Your task to perform on an android device: turn on the 12-hour format for clock Image 0: 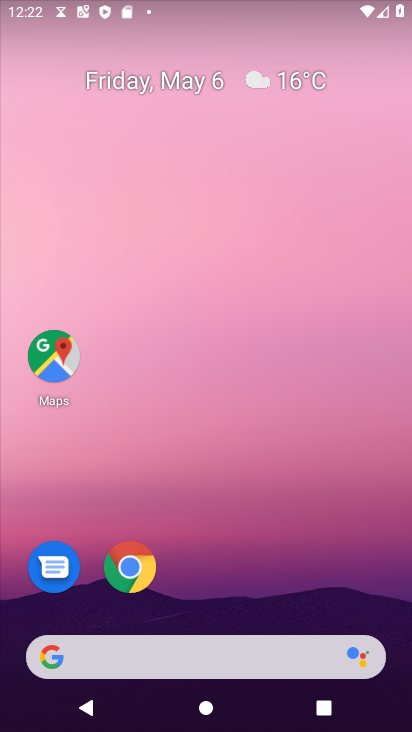
Step 0: drag from (278, 556) to (372, 127)
Your task to perform on an android device: turn on the 12-hour format for clock Image 1: 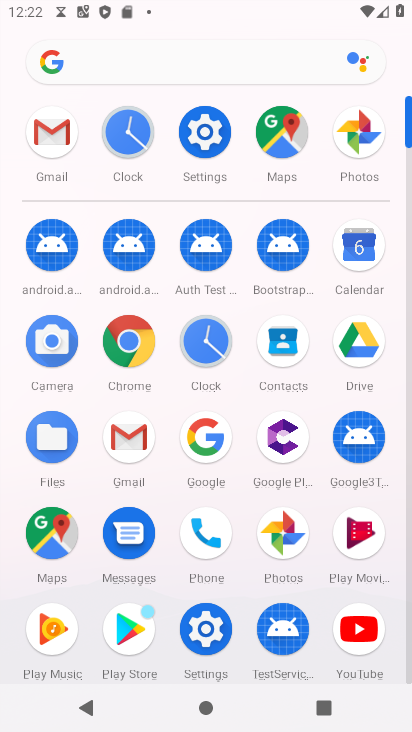
Step 1: click (212, 357)
Your task to perform on an android device: turn on the 12-hour format for clock Image 2: 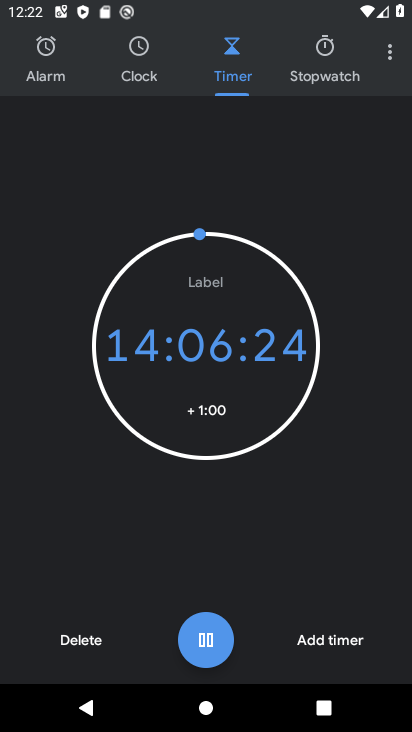
Step 2: click (386, 54)
Your task to perform on an android device: turn on the 12-hour format for clock Image 3: 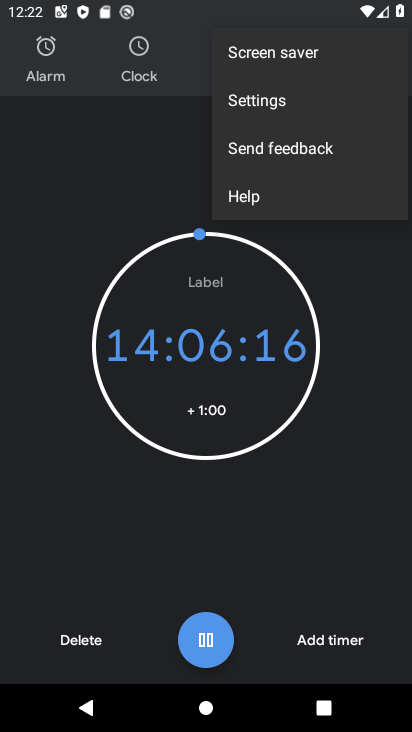
Step 3: click (281, 103)
Your task to perform on an android device: turn on the 12-hour format for clock Image 4: 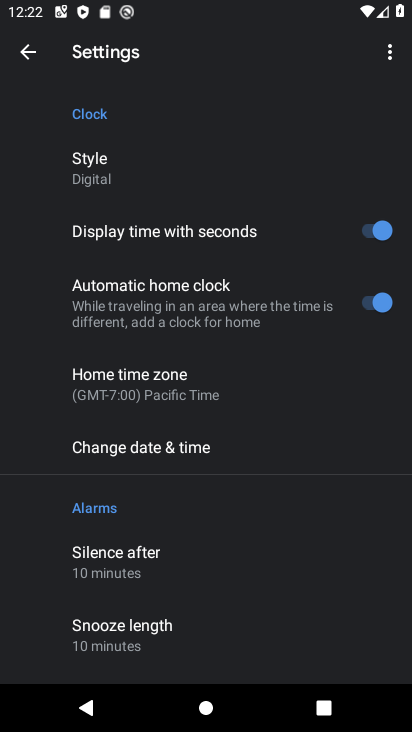
Step 4: drag from (270, 615) to (351, 132)
Your task to perform on an android device: turn on the 12-hour format for clock Image 5: 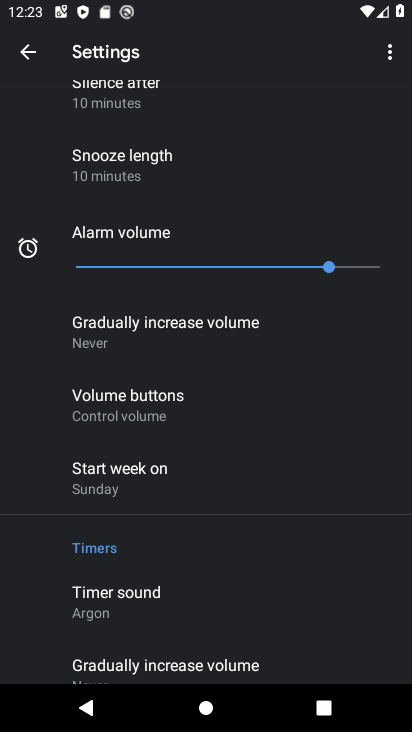
Step 5: drag from (241, 538) to (237, 99)
Your task to perform on an android device: turn on the 12-hour format for clock Image 6: 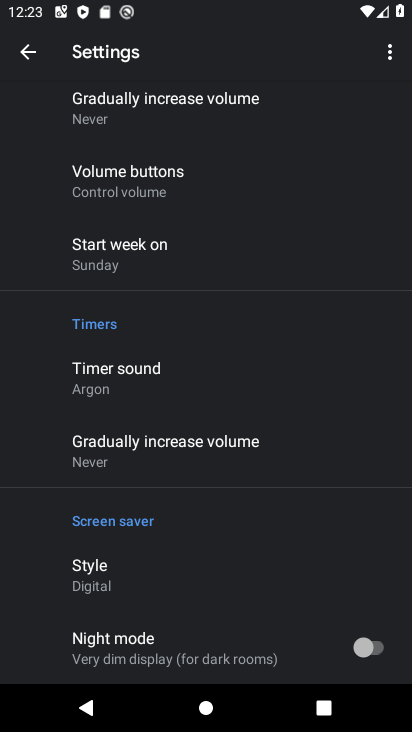
Step 6: drag from (206, 601) to (256, 170)
Your task to perform on an android device: turn on the 12-hour format for clock Image 7: 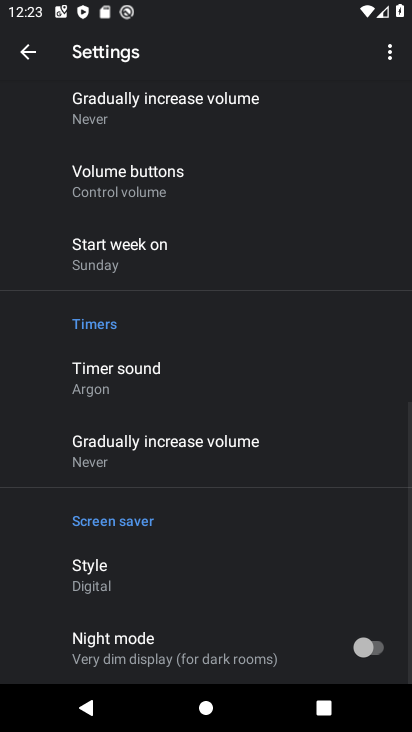
Step 7: drag from (254, 181) to (223, 540)
Your task to perform on an android device: turn on the 12-hour format for clock Image 8: 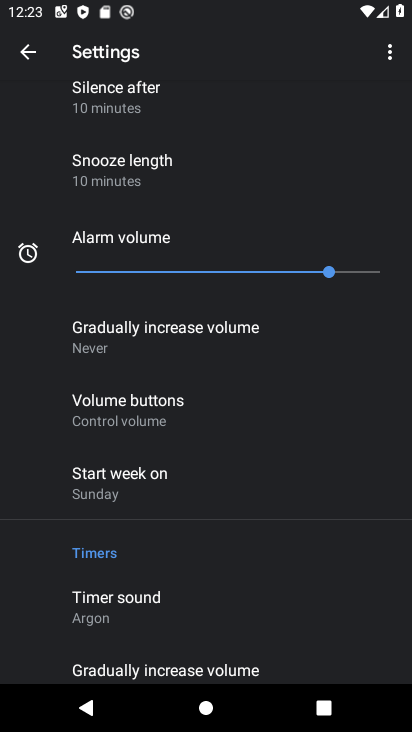
Step 8: drag from (234, 207) to (205, 540)
Your task to perform on an android device: turn on the 12-hour format for clock Image 9: 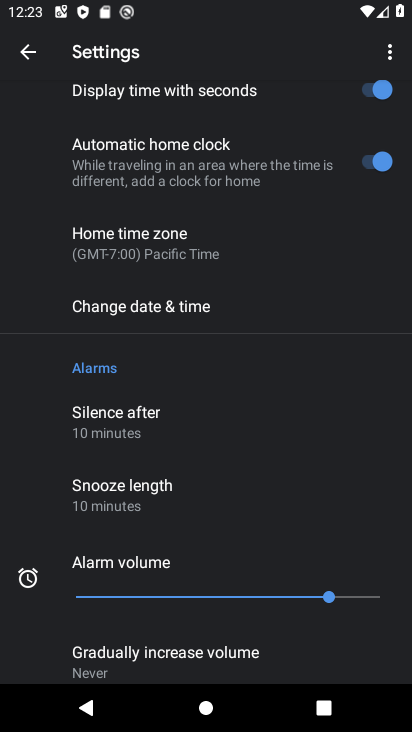
Step 9: drag from (231, 259) to (204, 574)
Your task to perform on an android device: turn on the 12-hour format for clock Image 10: 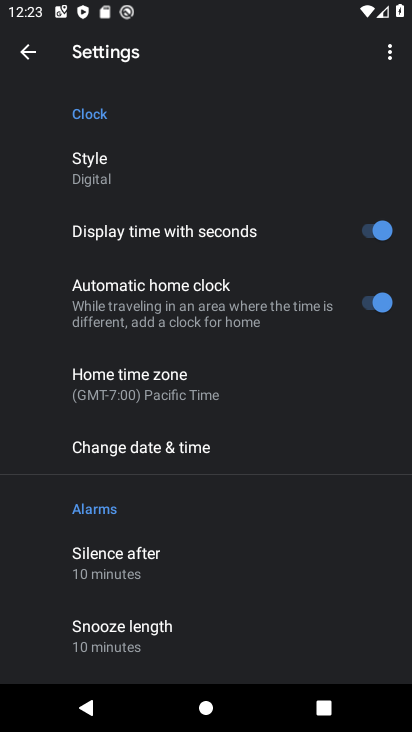
Step 10: drag from (185, 170) to (215, 507)
Your task to perform on an android device: turn on the 12-hour format for clock Image 11: 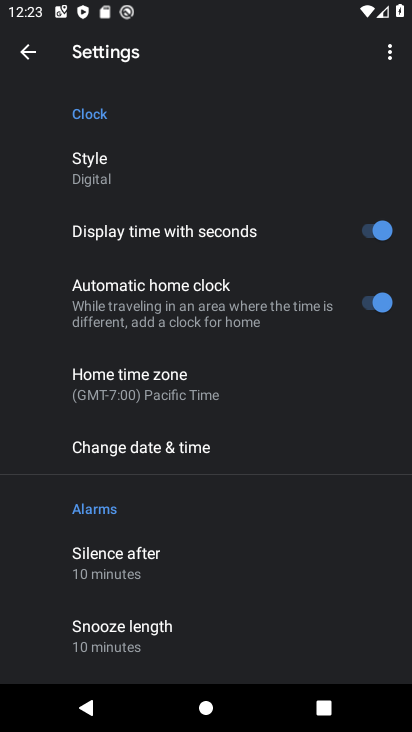
Step 11: click (186, 448)
Your task to perform on an android device: turn on the 12-hour format for clock Image 12: 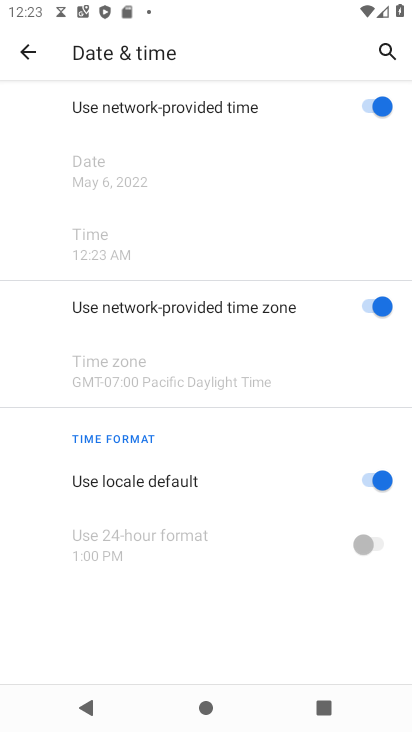
Step 12: drag from (208, 575) to (273, 216)
Your task to perform on an android device: turn on the 12-hour format for clock Image 13: 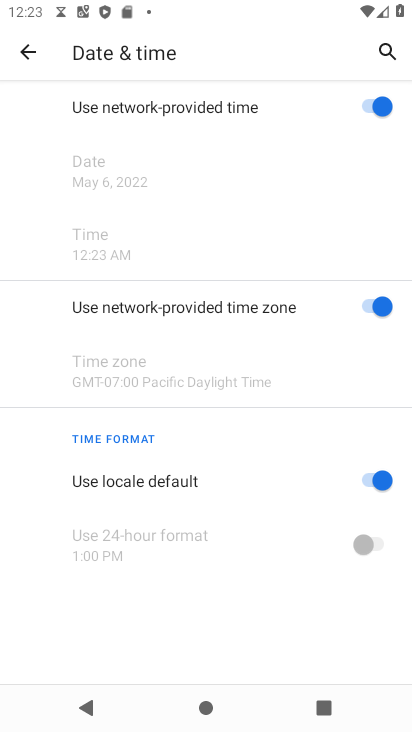
Step 13: click (385, 488)
Your task to perform on an android device: turn on the 12-hour format for clock Image 14: 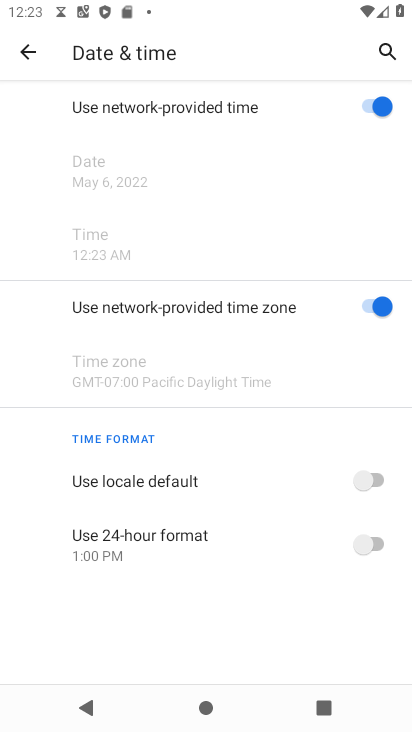
Step 14: task complete